Your task to perform on an android device: turn on the 24-hour format for clock Image 0: 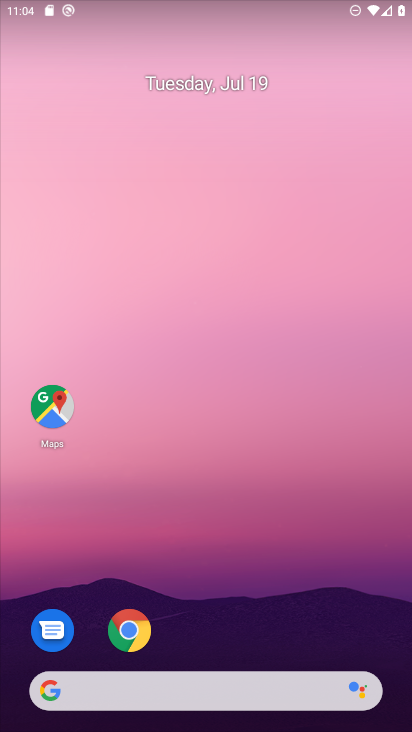
Step 0: drag from (194, 633) to (150, 177)
Your task to perform on an android device: turn on the 24-hour format for clock Image 1: 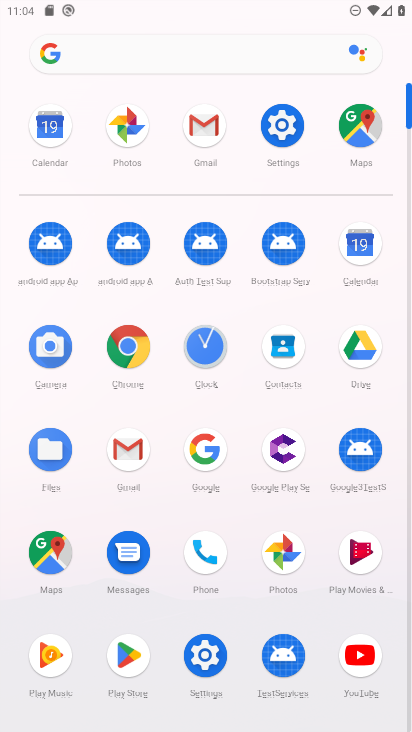
Step 1: click (204, 345)
Your task to perform on an android device: turn on the 24-hour format for clock Image 2: 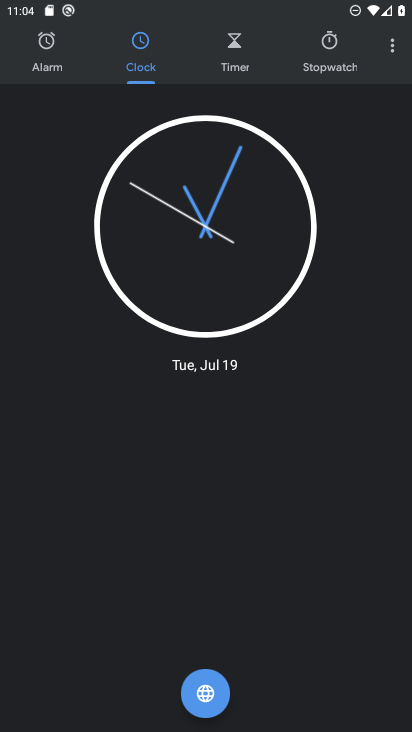
Step 2: click (382, 73)
Your task to perform on an android device: turn on the 24-hour format for clock Image 3: 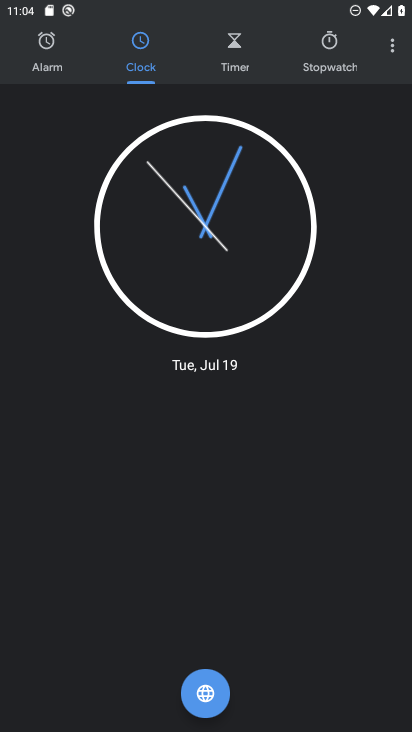
Step 3: click (387, 57)
Your task to perform on an android device: turn on the 24-hour format for clock Image 4: 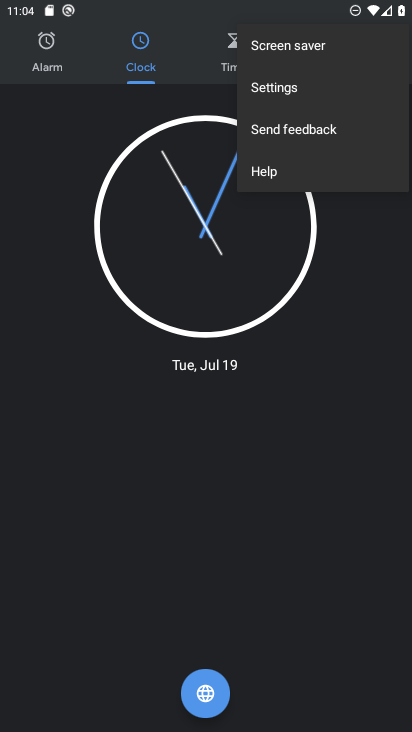
Step 4: click (302, 87)
Your task to perform on an android device: turn on the 24-hour format for clock Image 5: 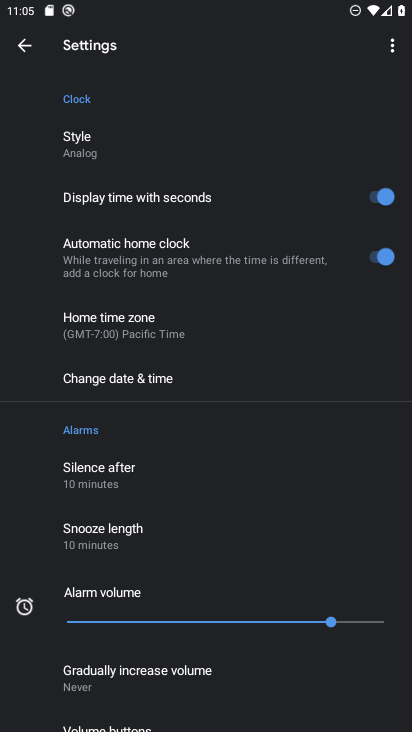
Step 5: click (131, 381)
Your task to perform on an android device: turn on the 24-hour format for clock Image 6: 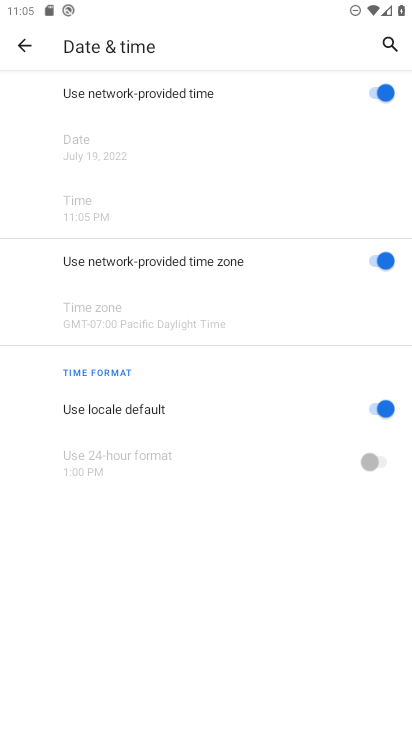
Step 6: click (372, 415)
Your task to perform on an android device: turn on the 24-hour format for clock Image 7: 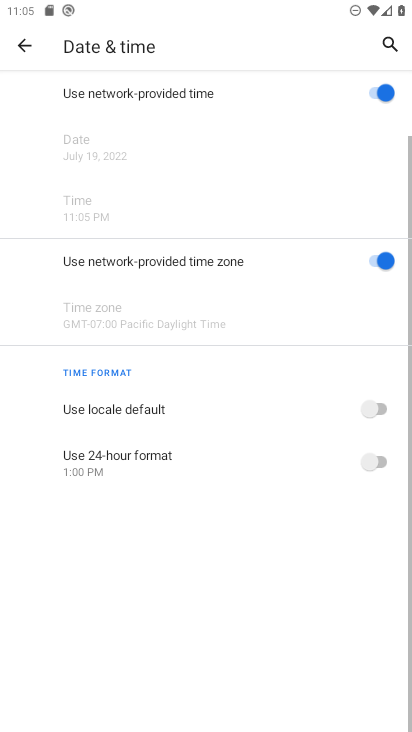
Step 7: click (383, 465)
Your task to perform on an android device: turn on the 24-hour format for clock Image 8: 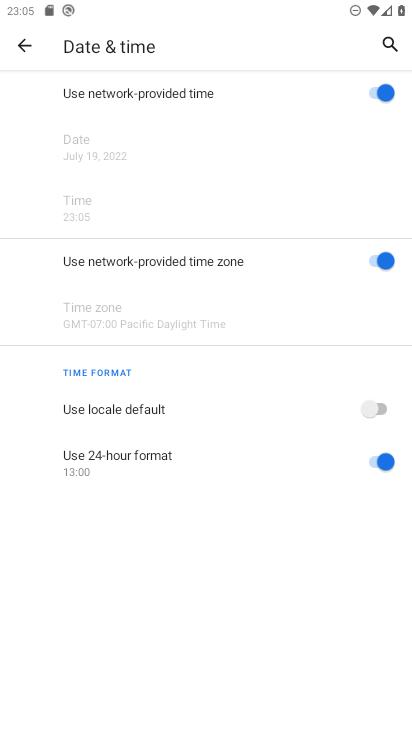
Step 8: task complete